Your task to perform on an android device: choose inbox layout in the gmail app Image 0: 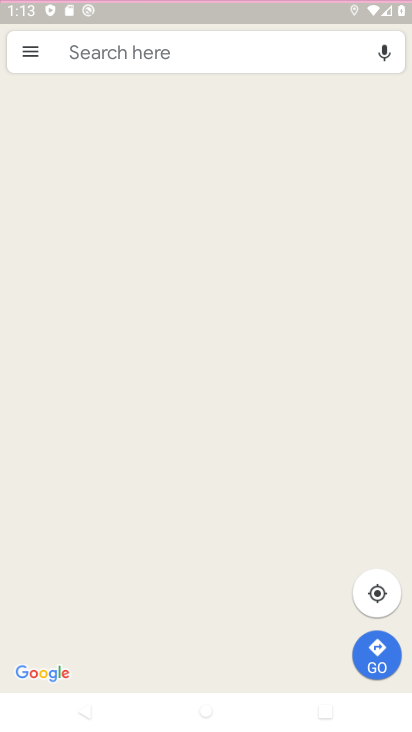
Step 0: drag from (336, 495) to (242, 132)
Your task to perform on an android device: choose inbox layout in the gmail app Image 1: 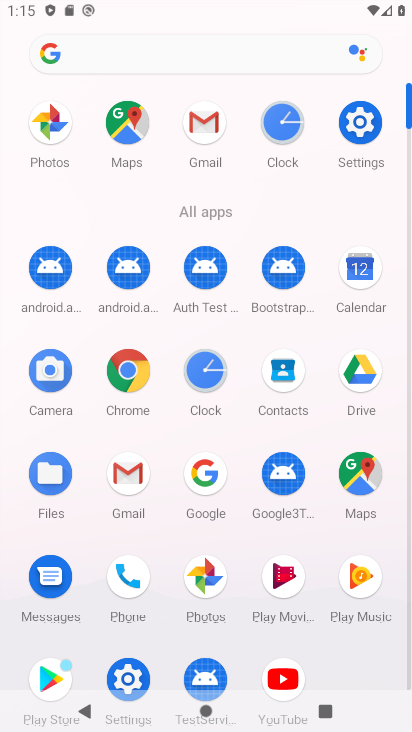
Step 1: click (107, 470)
Your task to perform on an android device: choose inbox layout in the gmail app Image 2: 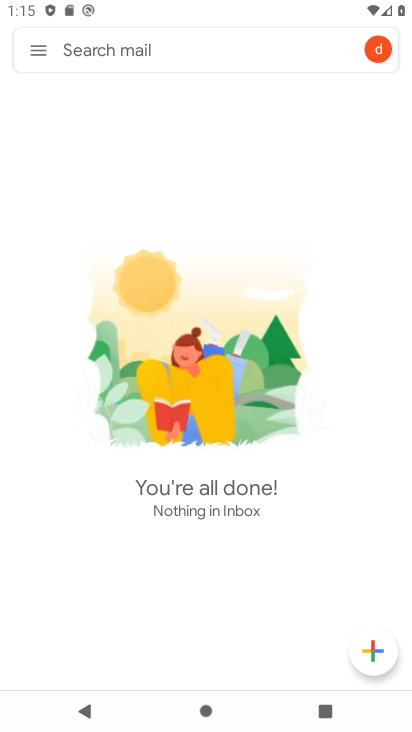
Step 2: task complete